Your task to perform on an android device: Open network settings Image 0: 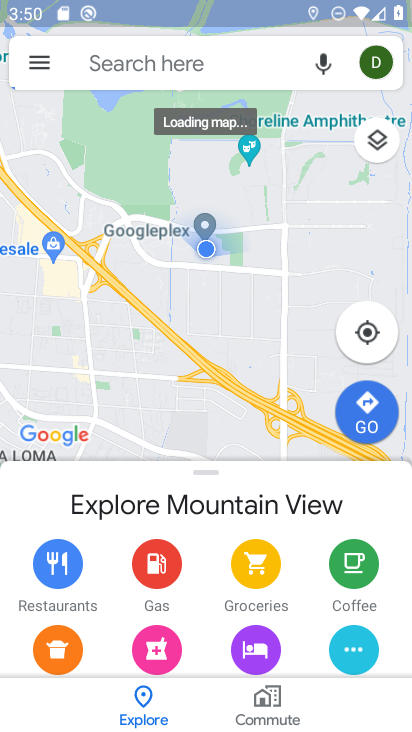
Step 0: press back button
Your task to perform on an android device: Open network settings Image 1: 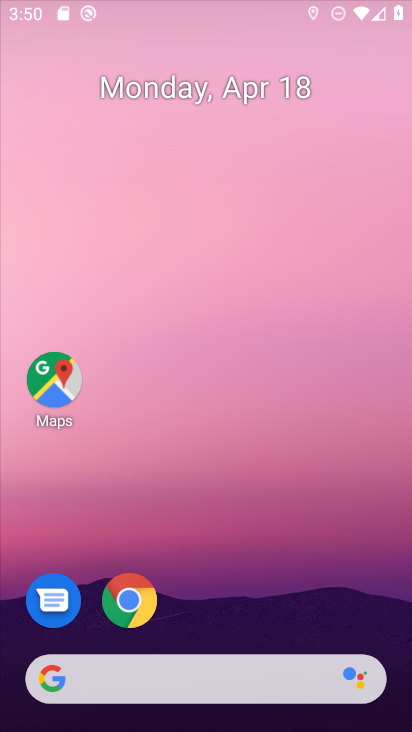
Step 1: press back button
Your task to perform on an android device: Open network settings Image 2: 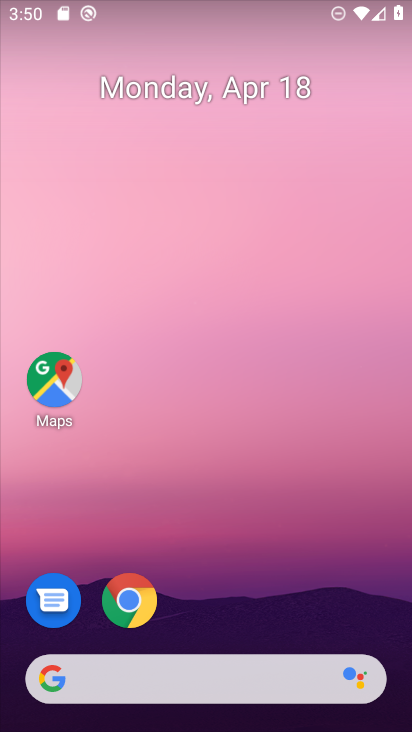
Step 2: drag from (220, 710) to (244, 101)
Your task to perform on an android device: Open network settings Image 3: 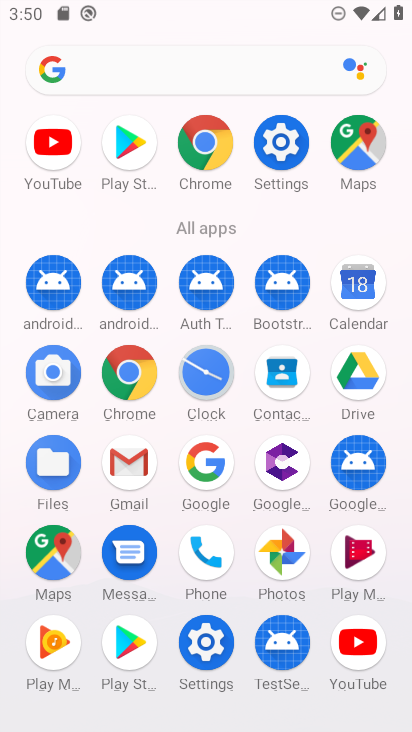
Step 3: click (281, 132)
Your task to perform on an android device: Open network settings Image 4: 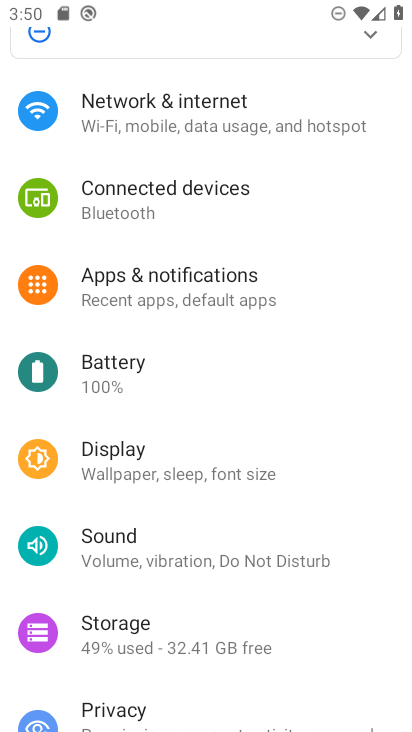
Step 4: drag from (162, 89) to (163, 240)
Your task to perform on an android device: Open network settings Image 5: 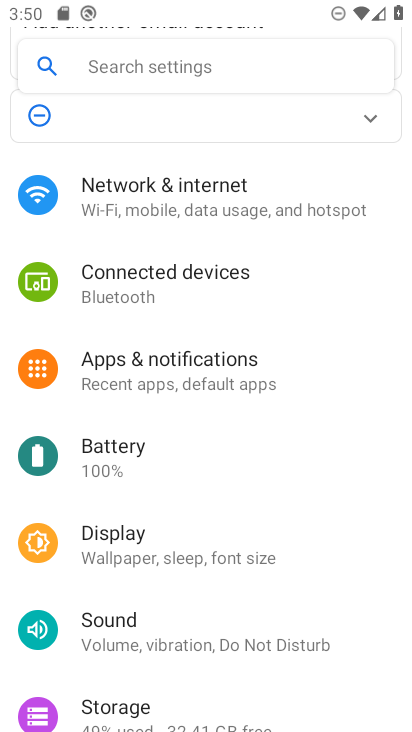
Step 5: click (130, 73)
Your task to perform on an android device: Open network settings Image 6: 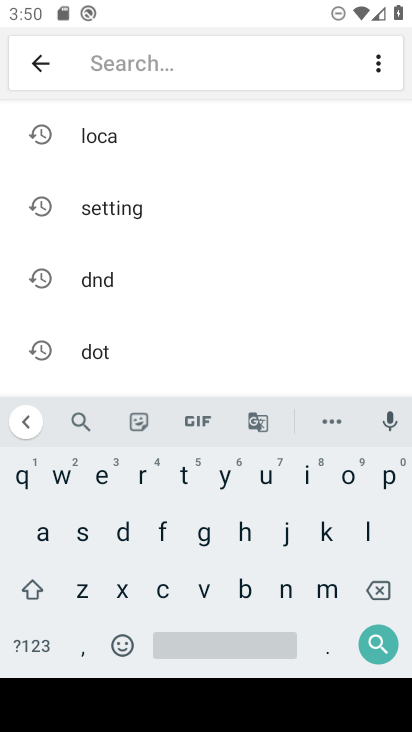
Step 6: click (40, 70)
Your task to perform on an android device: Open network settings Image 7: 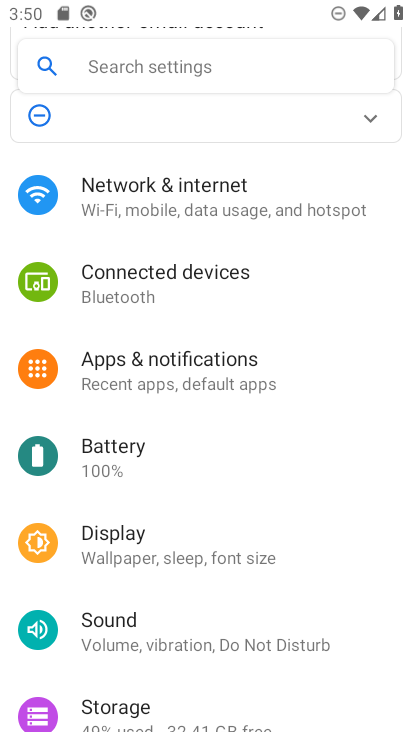
Step 7: click (144, 187)
Your task to perform on an android device: Open network settings Image 8: 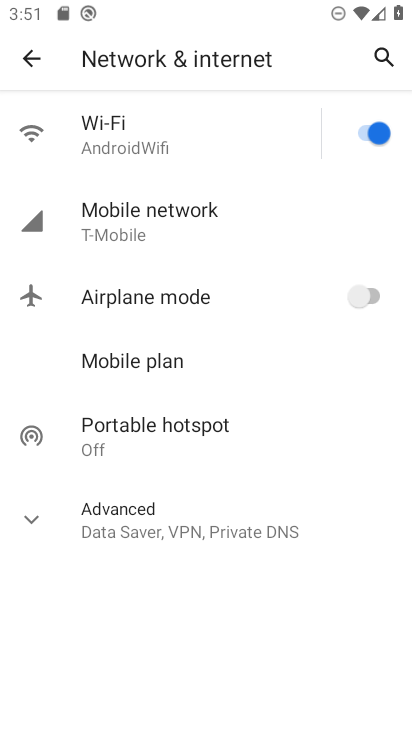
Step 8: click (128, 219)
Your task to perform on an android device: Open network settings Image 9: 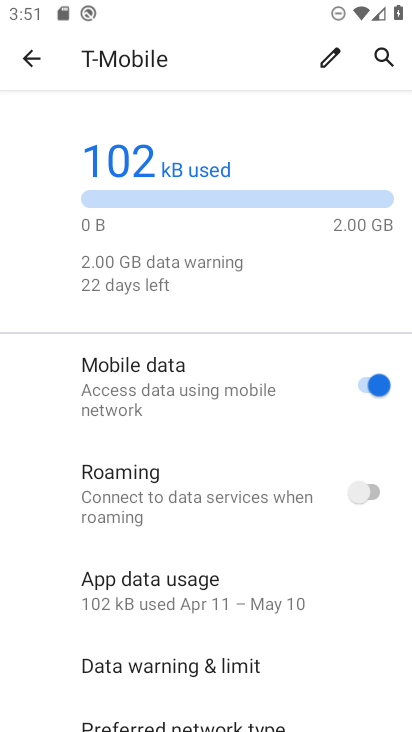
Step 9: task complete